Your task to perform on an android device: View the shopping cart on target. Add "logitech g933" to the cart on target Image 0: 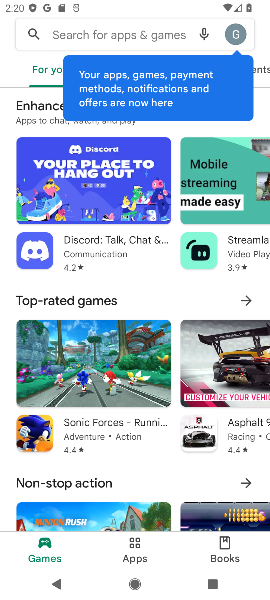
Step 0: press home button
Your task to perform on an android device: View the shopping cart on target. Add "logitech g933" to the cart on target Image 1: 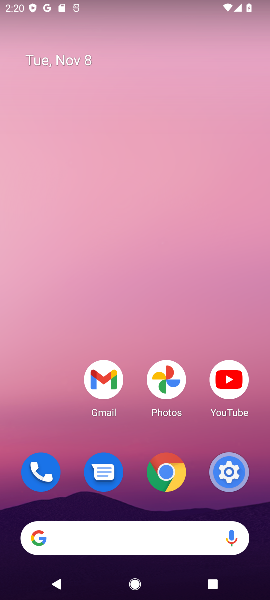
Step 1: click (164, 543)
Your task to perform on an android device: View the shopping cart on target. Add "logitech g933" to the cart on target Image 2: 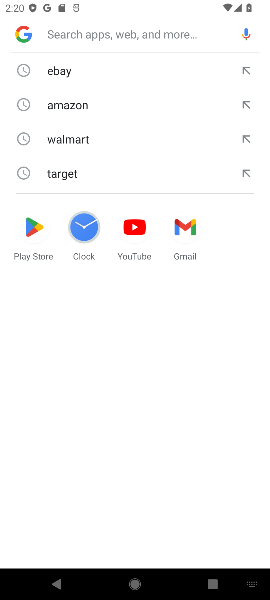
Step 2: type ""
Your task to perform on an android device: View the shopping cart on target. Add "logitech g933" to the cart on target Image 3: 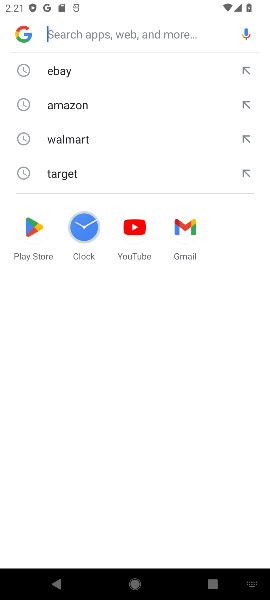
Step 3: click (79, 169)
Your task to perform on an android device: View the shopping cart on target. Add "logitech g933" to the cart on target Image 4: 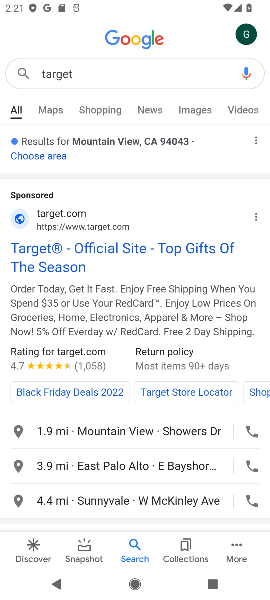
Step 4: click (104, 246)
Your task to perform on an android device: View the shopping cart on target. Add "logitech g933" to the cart on target Image 5: 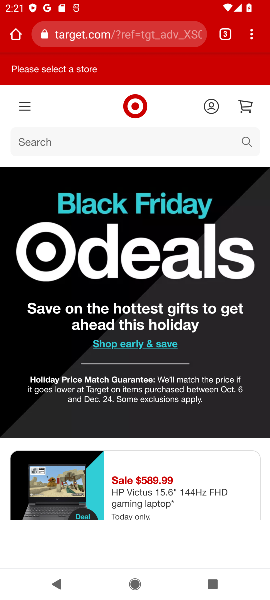
Step 5: click (187, 139)
Your task to perform on an android device: View the shopping cart on target. Add "logitech g933" to the cart on target Image 6: 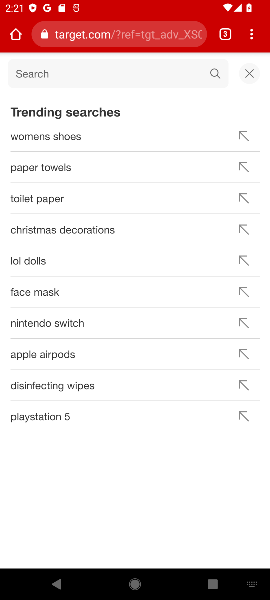
Step 6: type "loggitech"
Your task to perform on an android device: View the shopping cart on target. Add "logitech g933" to the cart on target Image 7: 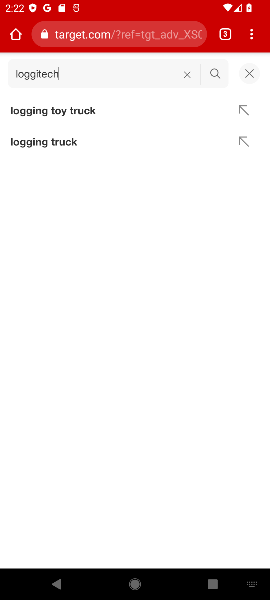
Step 7: task complete